Your task to perform on an android device: toggle sleep mode Image 0: 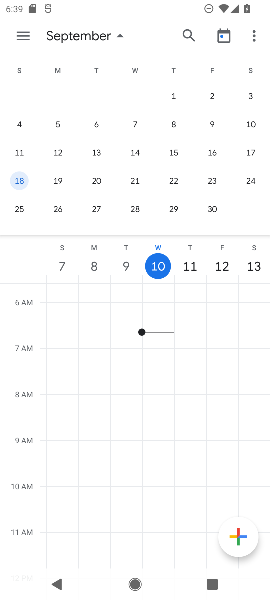
Step 0: press home button
Your task to perform on an android device: toggle sleep mode Image 1: 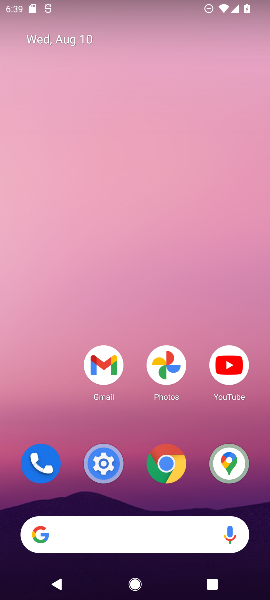
Step 1: click (103, 463)
Your task to perform on an android device: toggle sleep mode Image 2: 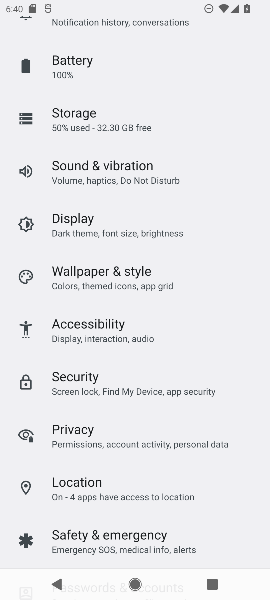
Step 2: click (93, 221)
Your task to perform on an android device: toggle sleep mode Image 3: 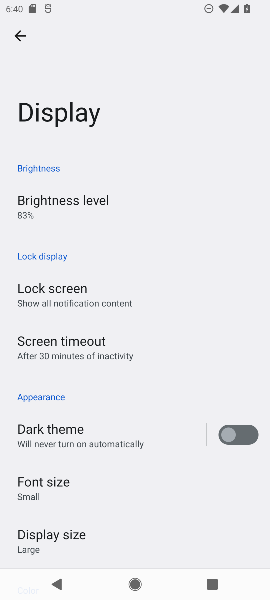
Step 3: task complete